Your task to perform on an android device: read, delete, or share a saved page in the chrome app Image 0: 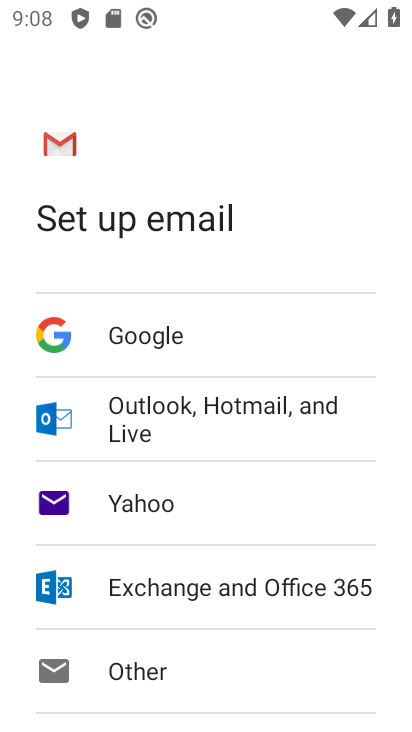
Step 0: press home button
Your task to perform on an android device: read, delete, or share a saved page in the chrome app Image 1: 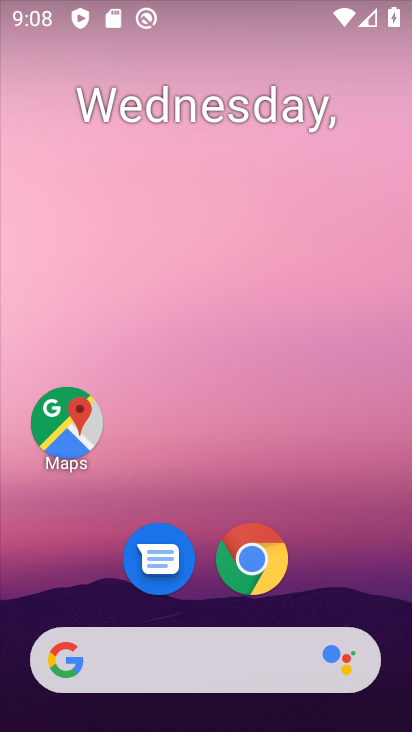
Step 1: click (269, 559)
Your task to perform on an android device: read, delete, or share a saved page in the chrome app Image 2: 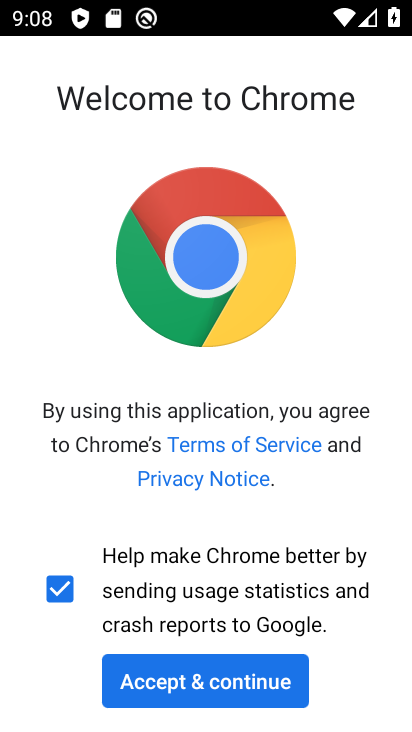
Step 2: click (140, 685)
Your task to perform on an android device: read, delete, or share a saved page in the chrome app Image 3: 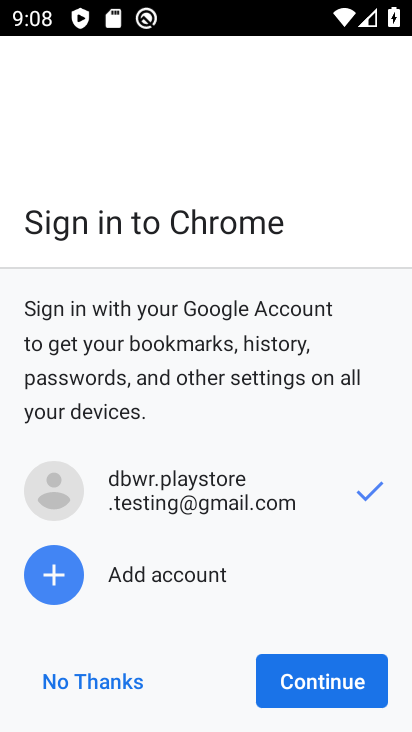
Step 3: click (301, 678)
Your task to perform on an android device: read, delete, or share a saved page in the chrome app Image 4: 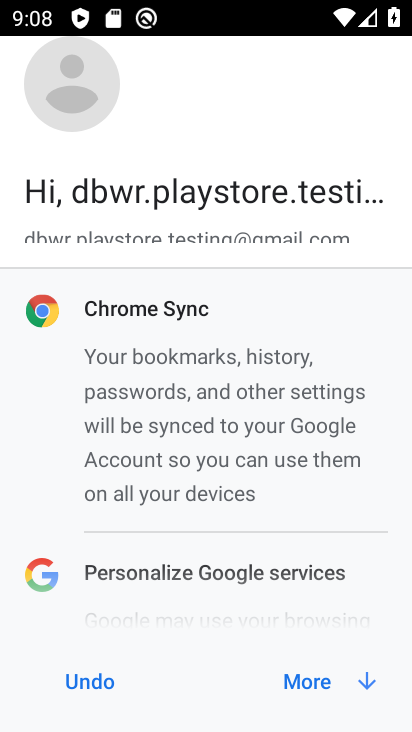
Step 4: click (327, 682)
Your task to perform on an android device: read, delete, or share a saved page in the chrome app Image 5: 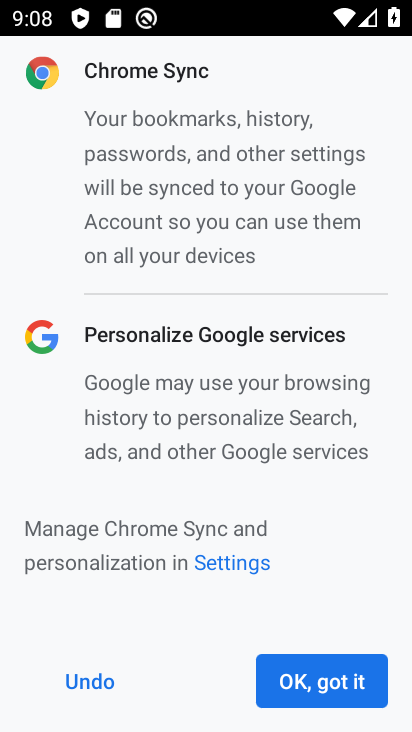
Step 5: click (327, 682)
Your task to perform on an android device: read, delete, or share a saved page in the chrome app Image 6: 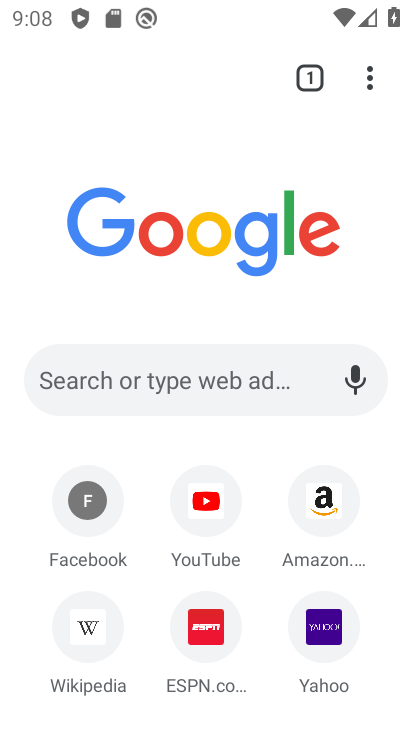
Step 6: click (379, 66)
Your task to perform on an android device: read, delete, or share a saved page in the chrome app Image 7: 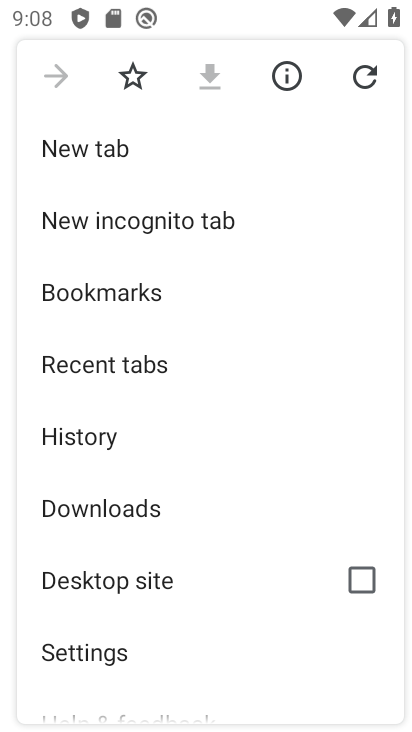
Step 7: click (60, 507)
Your task to perform on an android device: read, delete, or share a saved page in the chrome app Image 8: 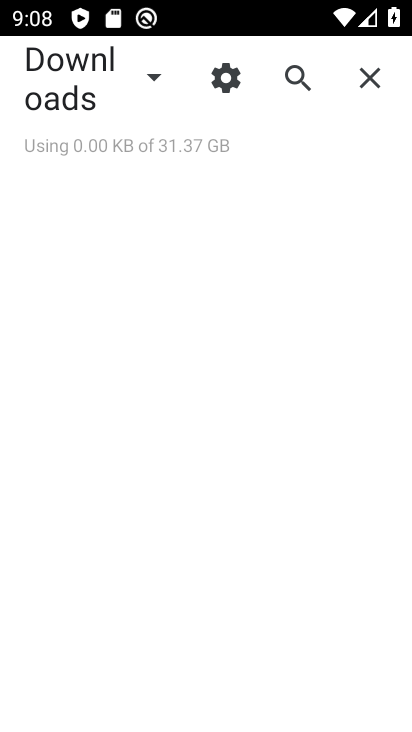
Step 8: click (156, 78)
Your task to perform on an android device: read, delete, or share a saved page in the chrome app Image 9: 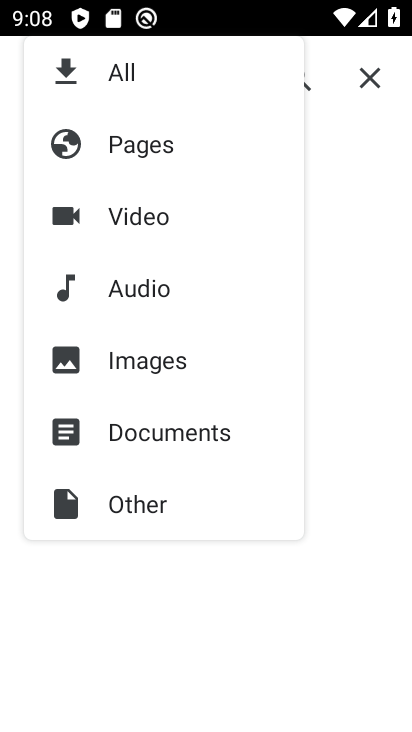
Step 9: click (104, 154)
Your task to perform on an android device: read, delete, or share a saved page in the chrome app Image 10: 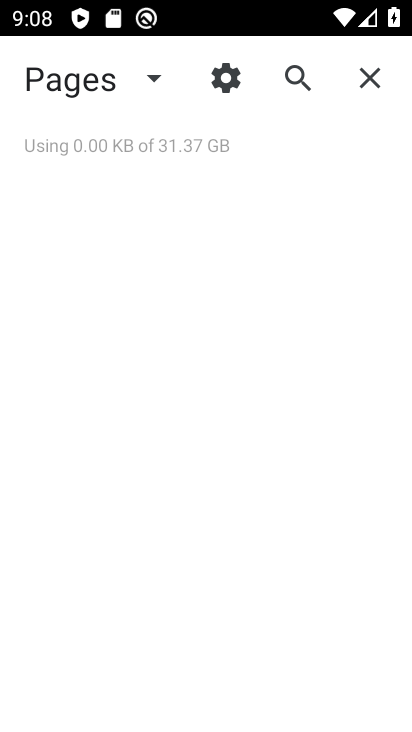
Step 10: task complete